Your task to perform on an android device: Open the calendar app, open the side menu, and click the "Day" option Image 0: 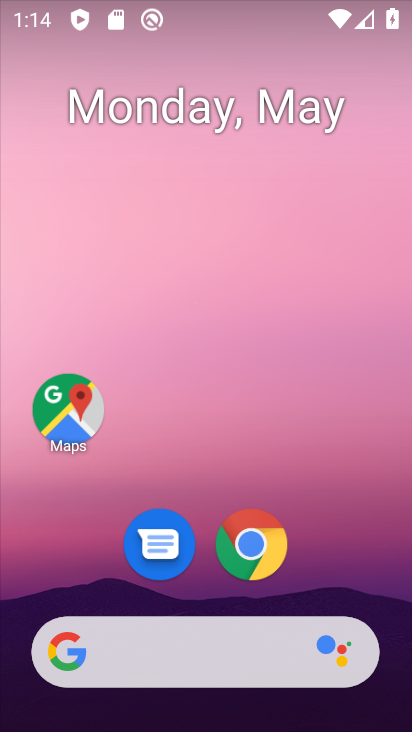
Step 0: drag from (384, 594) to (397, 253)
Your task to perform on an android device: Open the calendar app, open the side menu, and click the "Day" option Image 1: 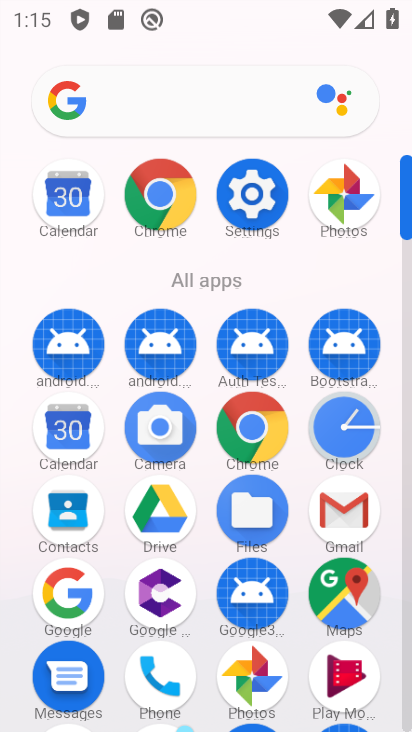
Step 1: click (95, 436)
Your task to perform on an android device: Open the calendar app, open the side menu, and click the "Day" option Image 2: 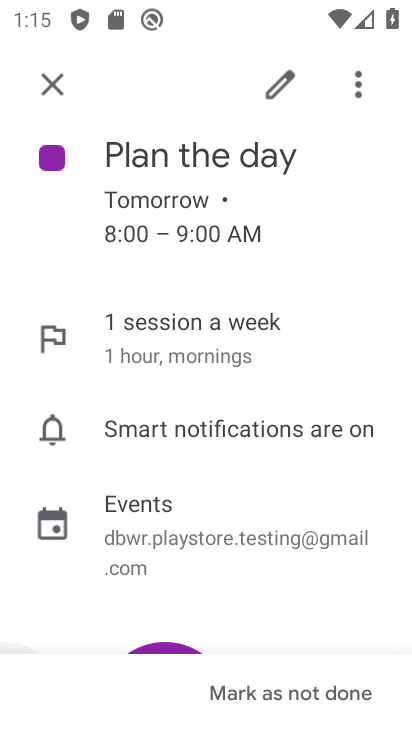
Step 2: click (43, 71)
Your task to perform on an android device: Open the calendar app, open the side menu, and click the "Day" option Image 3: 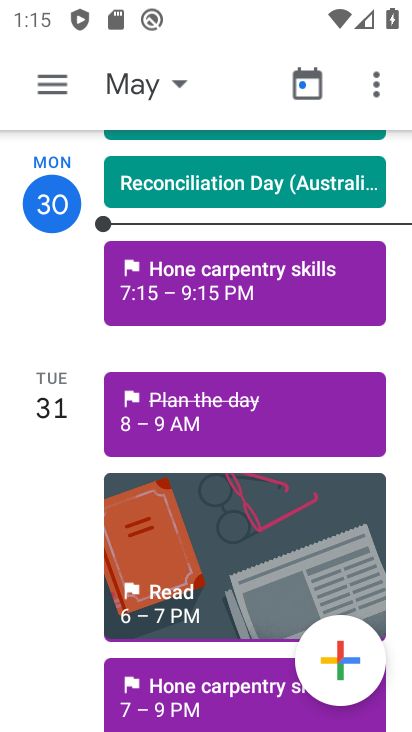
Step 3: click (45, 83)
Your task to perform on an android device: Open the calendar app, open the side menu, and click the "Day" option Image 4: 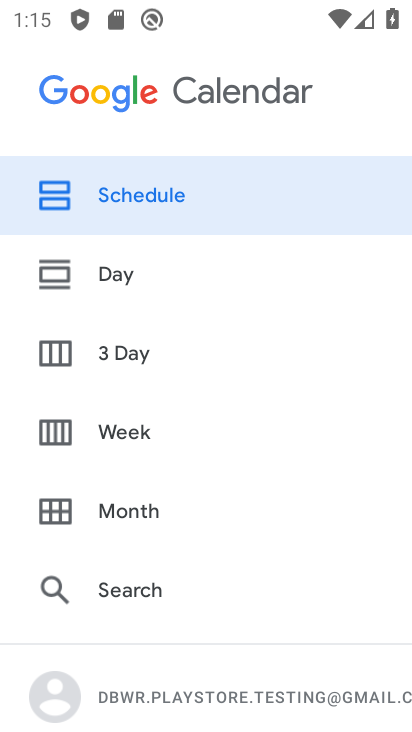
Step 4: click (164, 277)
Your task to perform on an android device: Open the calendar app, open the side menu, and click the "Day" option Image 5: 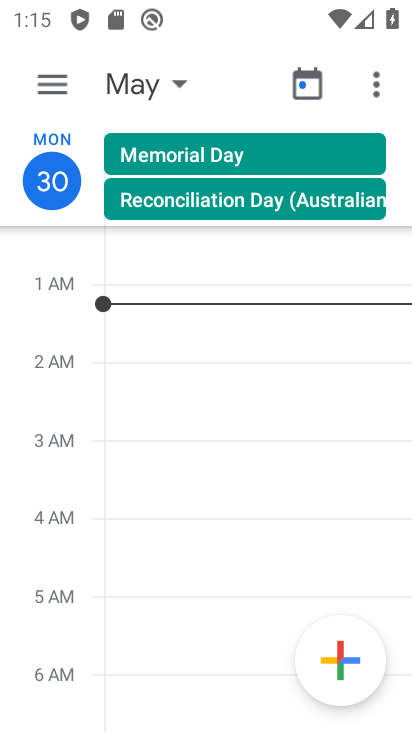
Step 5: task complete